Your task to perform on an android device: turn pop-ups on in chrome Image 0: 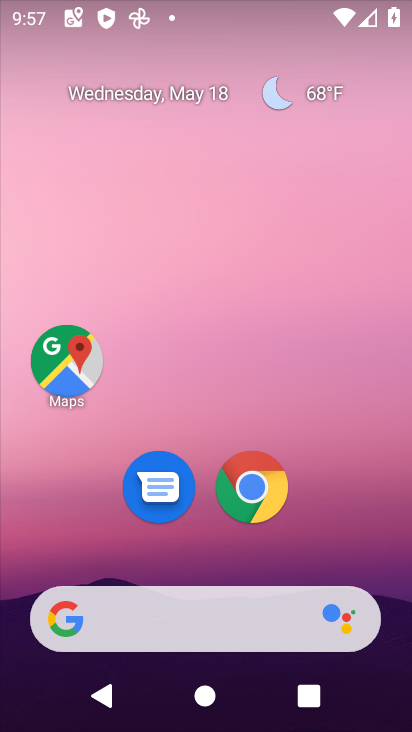
Step 0: drag from (345, 542) to (356, 131)
Your task to perform on an android device: turn pop-ups on in chrome Image 1: 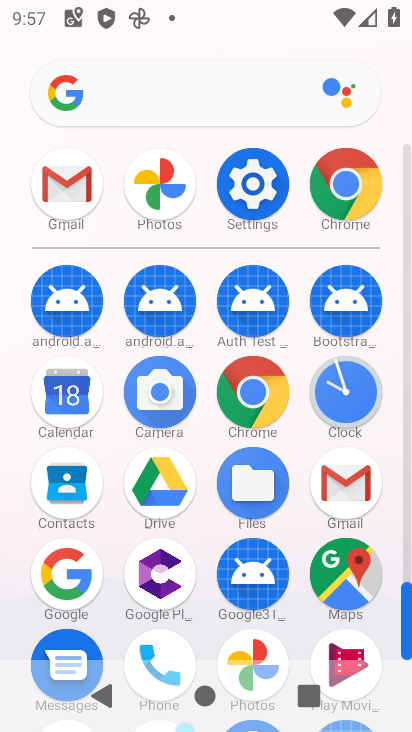
Step 1: click (256, 408)
Your task to perform on an android device: turn pop-ups on in chrome Image 2: 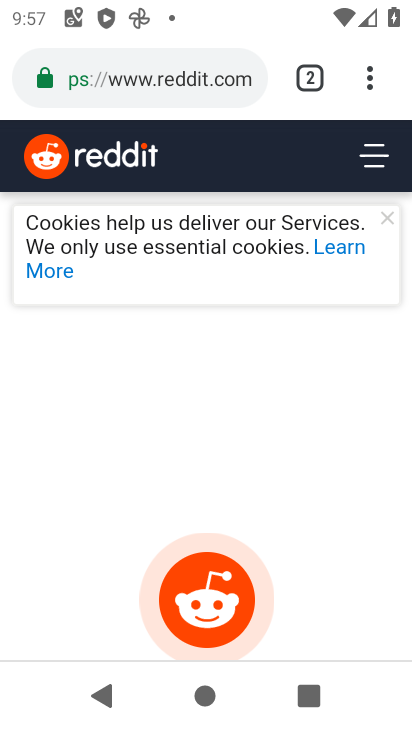
Step 2: drag from (376, 54) to (228, 557)
Your task to perform on an android device: turn pop-ups on in chrome Image 3: 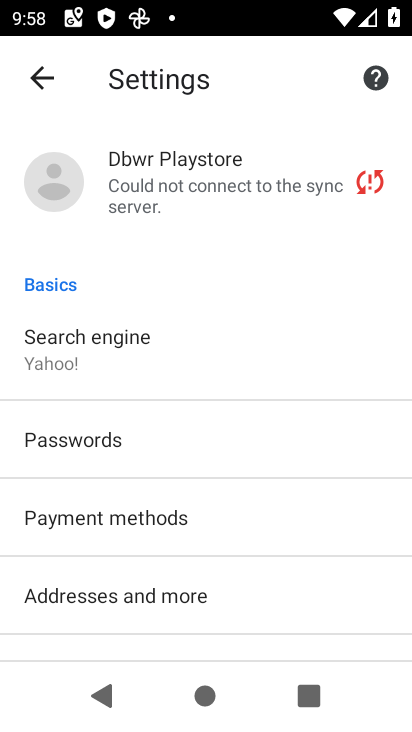
Step 3: drag from (197, 574) to (197, 321)
Your task to perform on an android device: turn pop-ups on in chrome Image 4: 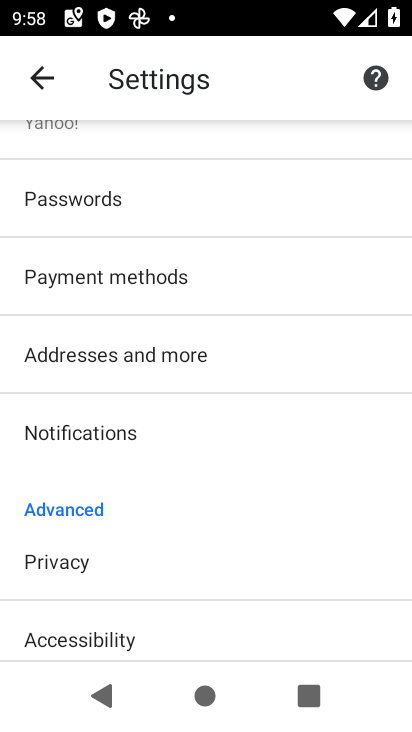
Step 4: drag from (210, 562) to (238, 277)
Your task to perform on an android device: turn pop-ups on in chrome Image 5: 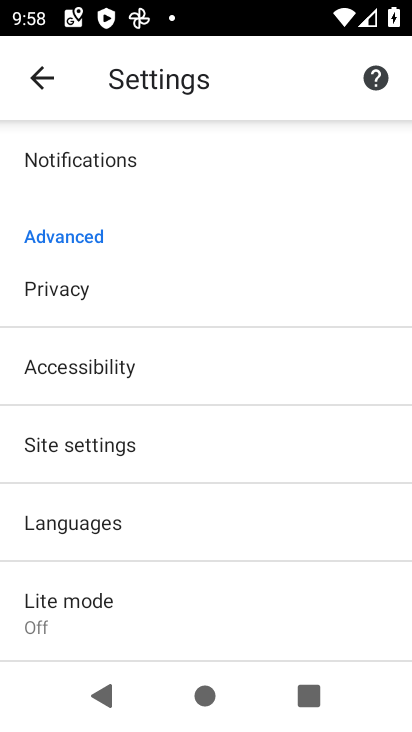
Step 5: click (152, 453)
Your task to perform on an android device: turn pop-ups on in chrome Image 6: 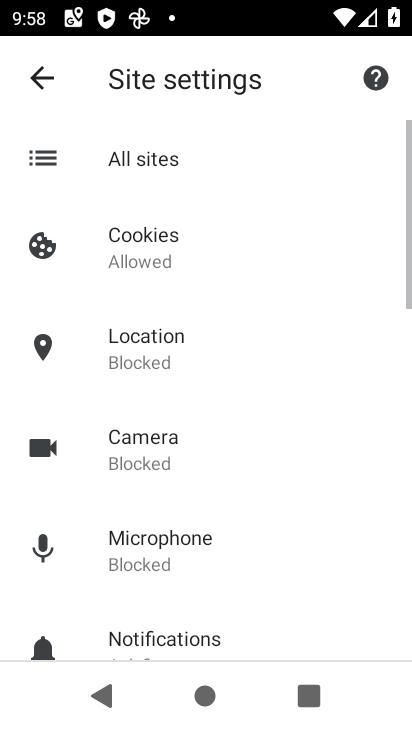
Step 6: drag from (219, 566) to (223, 266)
Your task to perform on an android device: turn pop-ups on in chrome Image 7: 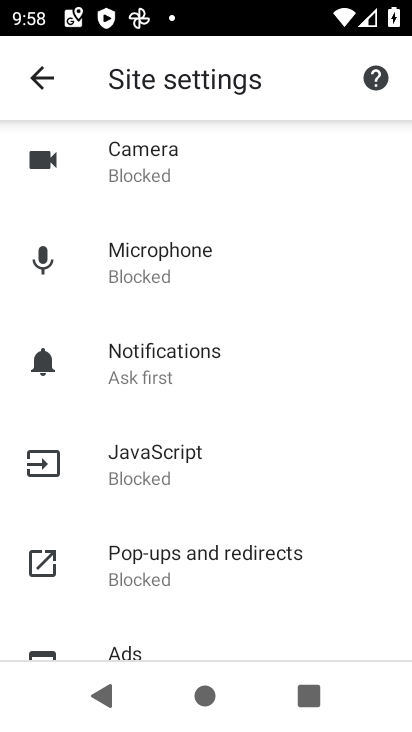
Step 7: click (226, 560)
Your task to perform on an android device: turn pop-ups on in chrome Image 8: 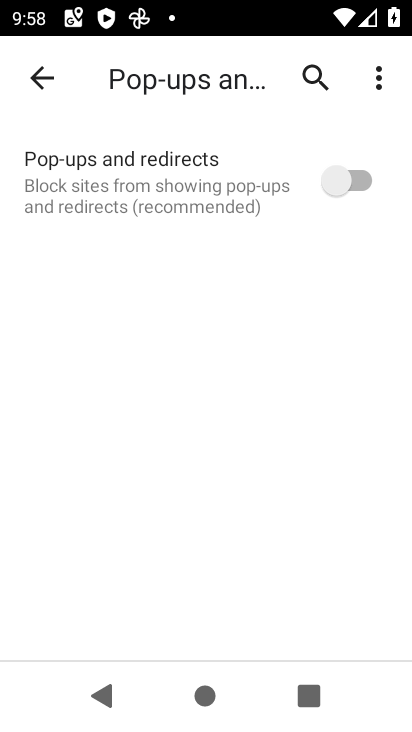
Step 8: click (353, 189)
Your task to perform on an android device: turn pop-ups on in chrome Image 9: 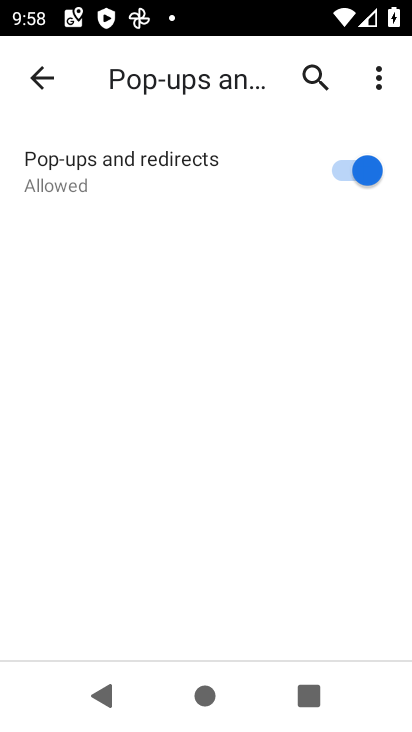
Step 9: task complete